Your task to perform on an android device: turn notification dots off Image 0: 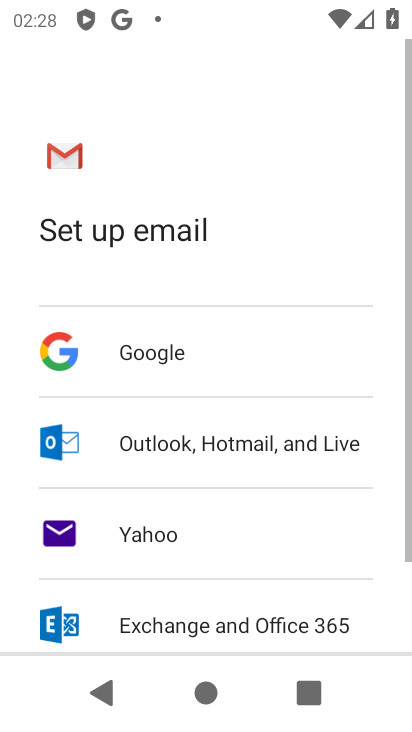
Step 0: drag from (355, 471) to (335, 184)
Your task to perform on an android device: turn notification dots off Image 1: 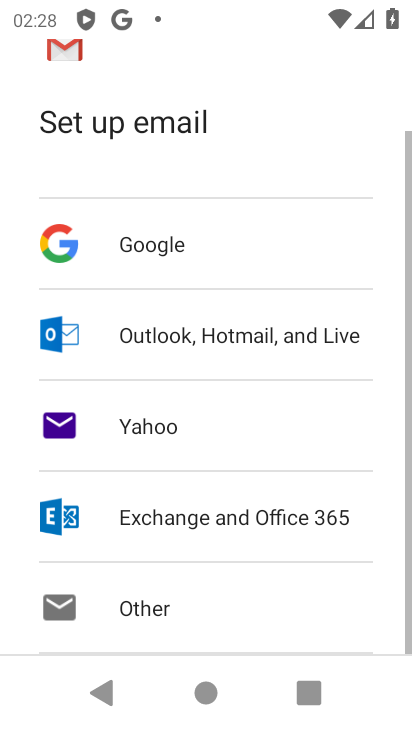
Step 1: press home button
Your task to perform on an android device: turn notification dots off Image 2: 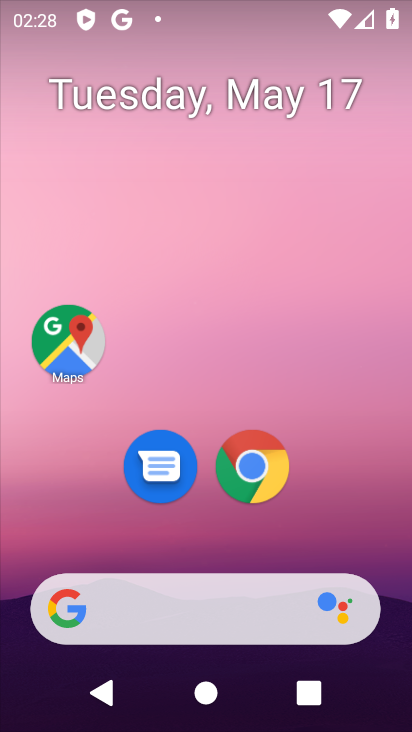
Step 2: drag from (361, 517) to (251, 171)
Your task to perform on an android device: turn notification dots off Image 3: 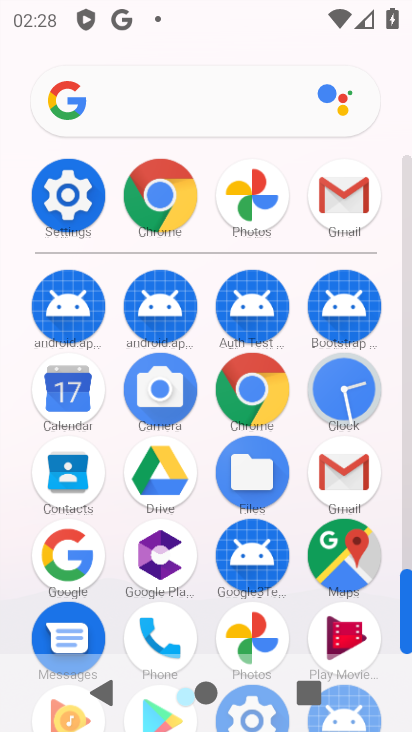
Step 3: click (62, 204)
Your task to perform on an android device: turn notification dots off Image 4: 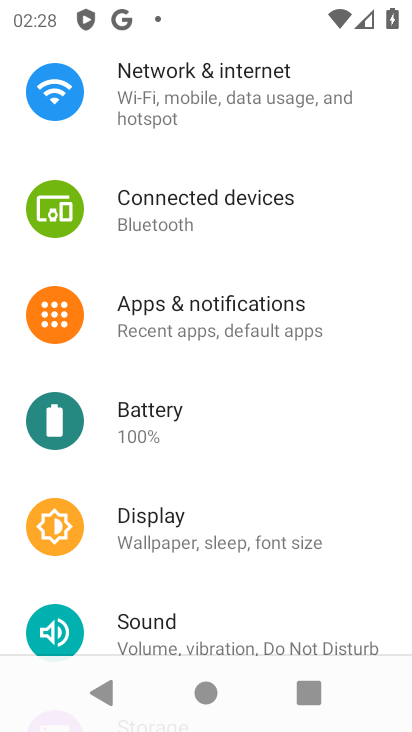
Step 4: click (213, 306)
Your task to perform on an android device: turn notification dots off Image 5: 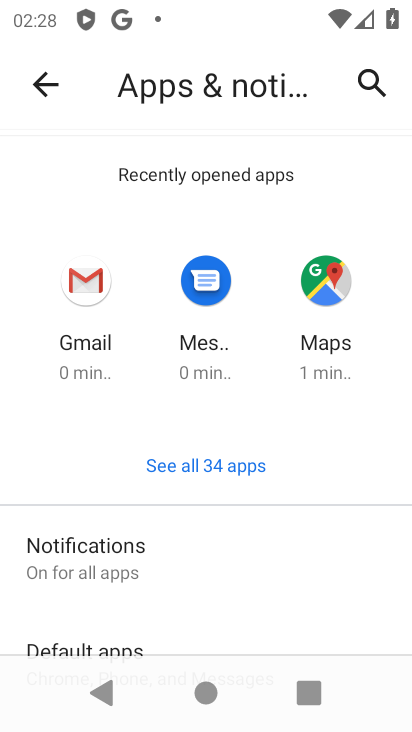
Step 5: drag from (227, 555) to (322, 174)
Your task to perform on an android device: turn notification dots off Image 6: 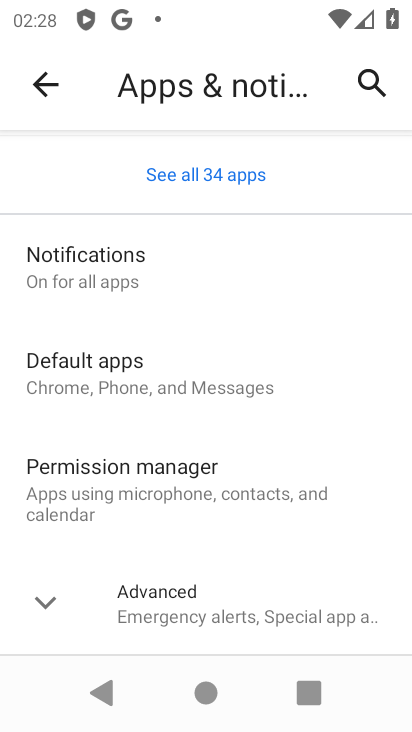
Step 6: click (143, 247)
Your task to perform on an android device: turn notification dots off Image 7: 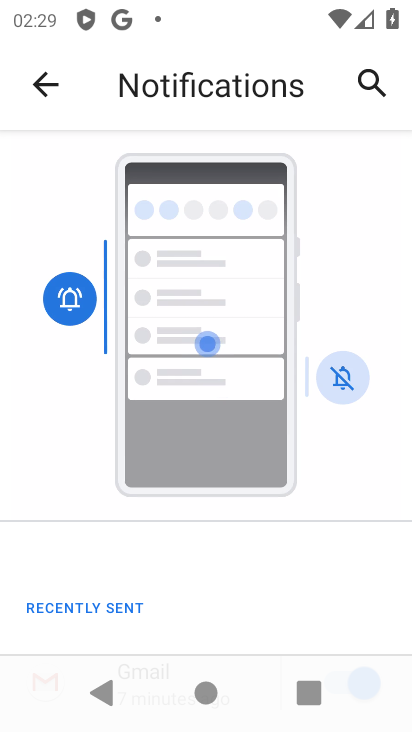
Step 7: drag from (235, 555) to (264, 193)
Your task to perform on an android device: turn notification dots off Image 8: 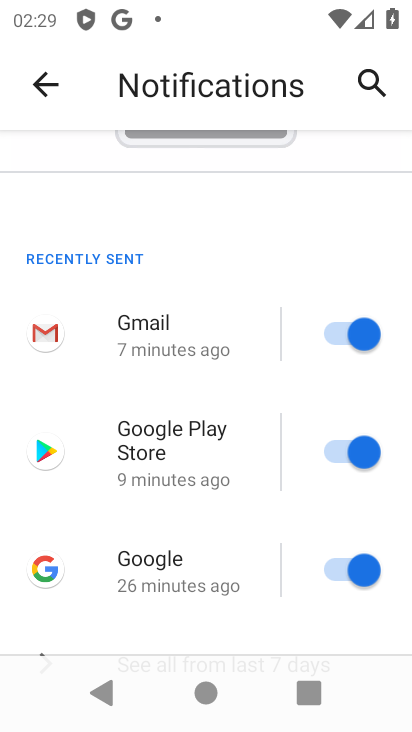
Step 8: drag from (171, 571) to (265, 214)
Your task to perform on an android device: turn notification dots off Image 9: 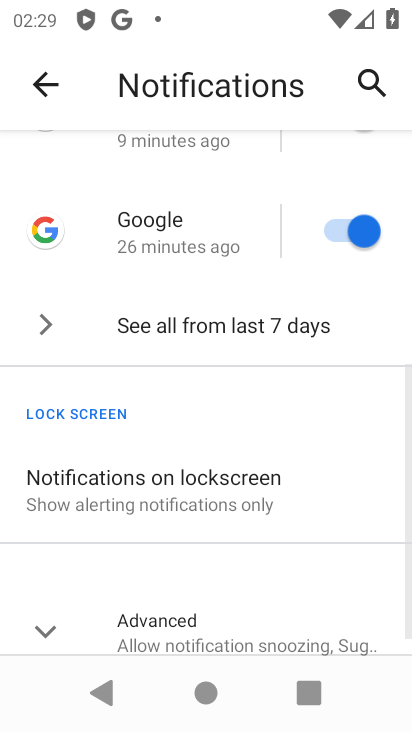
Step 9: click (172, 632)
Your task to perform on an android device: turn notification dots off Image 10: 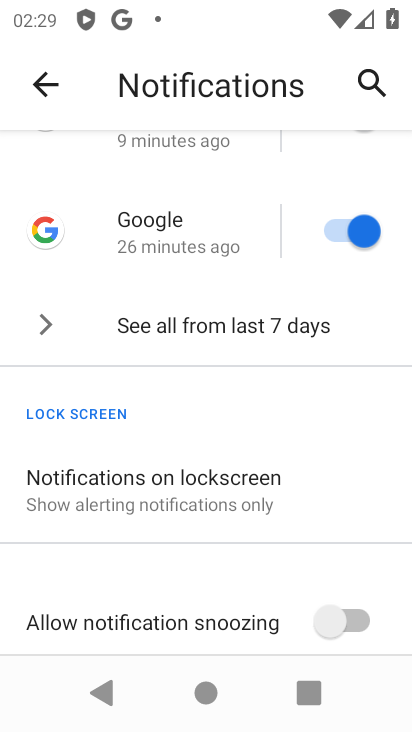
Step 10: drag from (217, 543) to (258, 256)
Your task to perform on an android device: turn notification dots off Image 11: 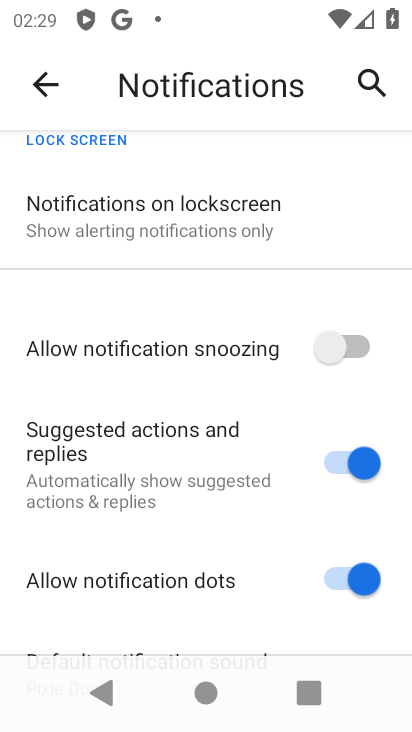
Step 11: drag from (187, 542) to (256, 232)
Your task to perform on an android device: turn notification dots off Image 12: 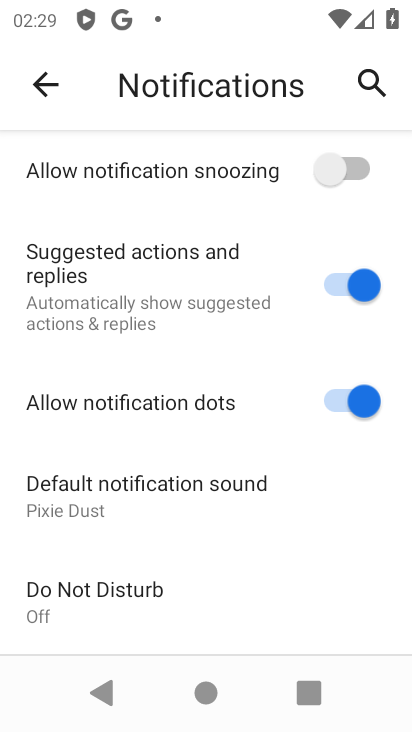
Step 12: drag from (224, 522) to (327, 197)
Your task to perform on an android device: turn notification dots off Image 13: 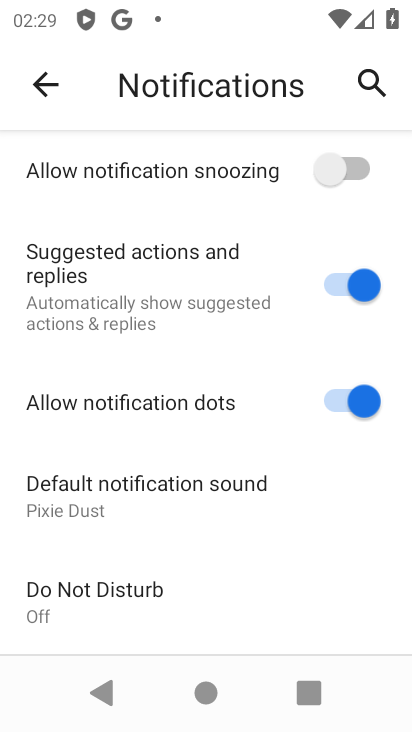
Step 13: click (366, 408)
Your task to perform on an android device: turn notification dots off Image 14: 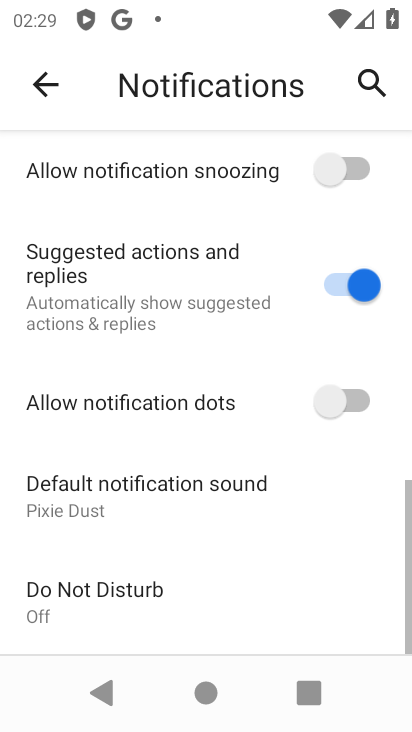
Step 14: task complete